Your task to perform on an android device: turn off javascript in the chrome app Image 0: 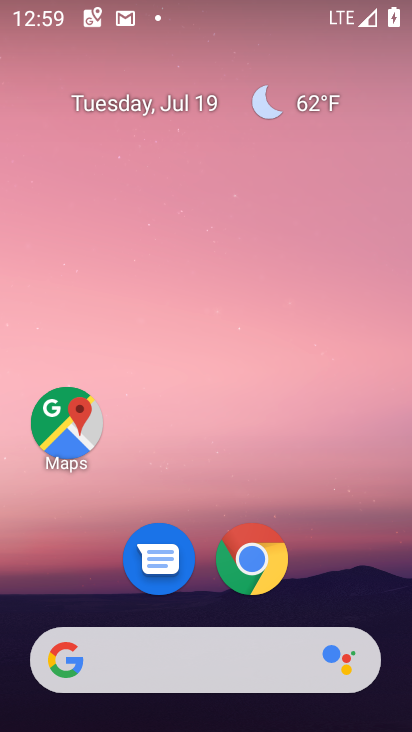
Step 0: drag from (200, 634) to (192, 70)
Your task to perform on an android device: turn off javascript in the chrome app Image 1: 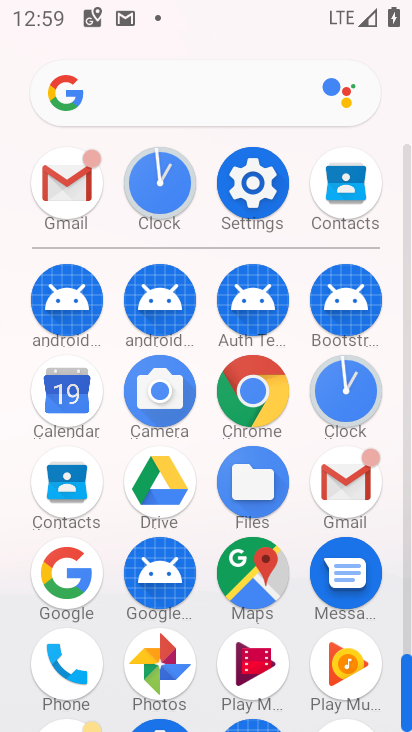
Step 1: click (249, 390)
Your task to perform on an android device: turn off javascript in the chrome app Image 2: 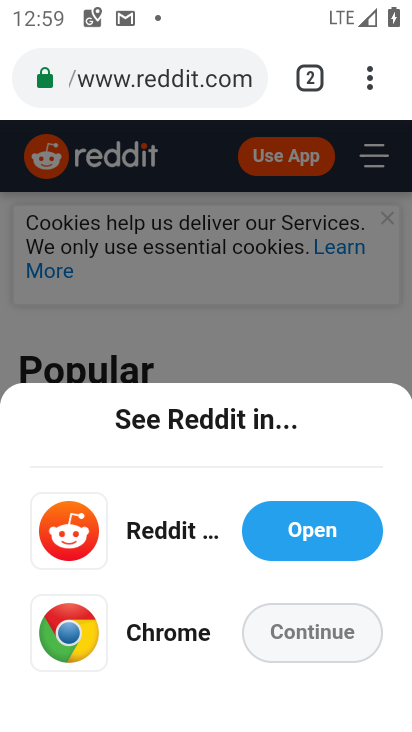
Step 2: click (369, 83)
Your task to perform on an android device: turn off javascript in the chrome app Image 3: 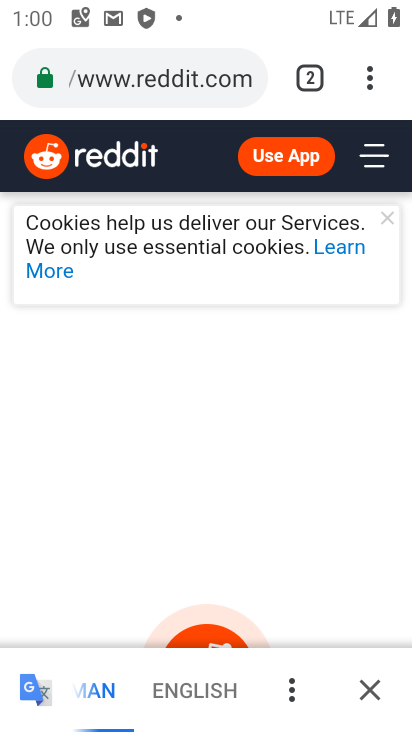
Step 3: click (380, 91)
Your task to perform on an android device: turn off javascript in the chrome app Image 4: 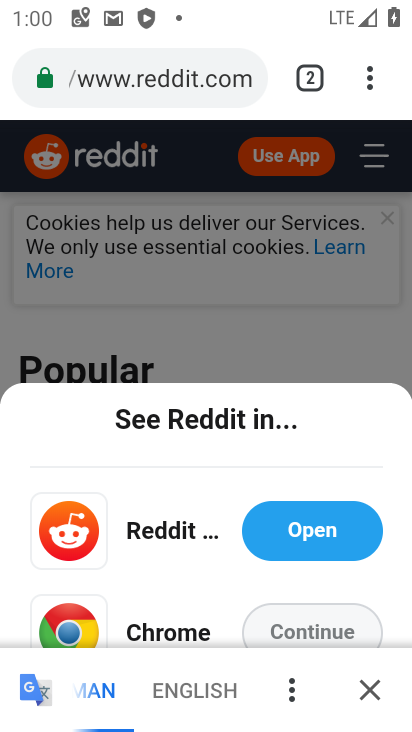
Step 4: click (368, 86)
Your task to perform on an android device: turn off javascript in the chrome app Image 5: 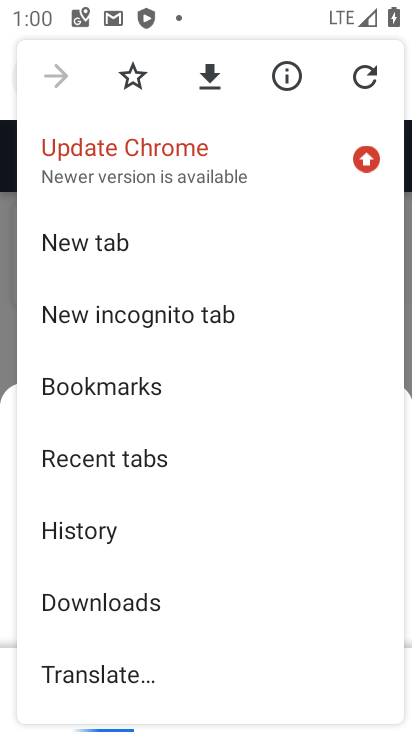
Step 5: drag from (271, 622) to (245, 407)
Your task to perform on an android device: turn off javascript in the chrome app Image 6: 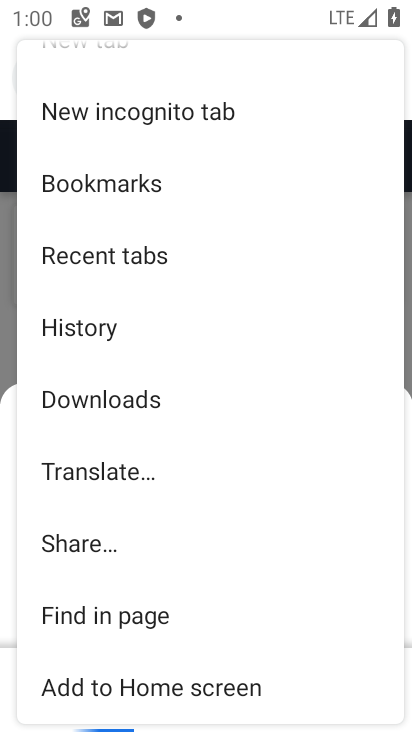
Step 6: drag from (223, 597) to (231, 397)
Your task to perform on an android device: turn off javascript in the chrome app Image 7: 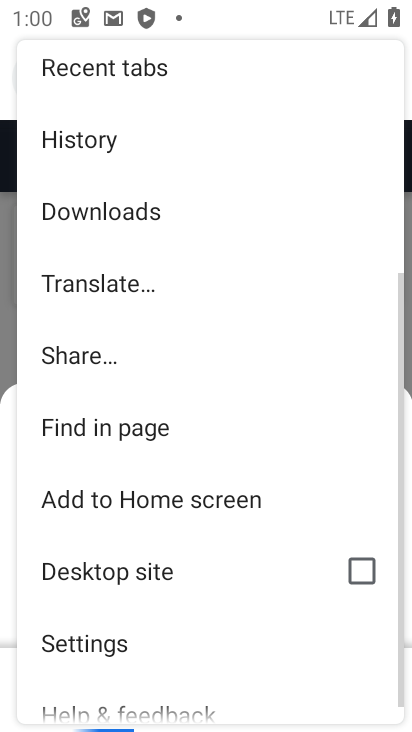
Step 7: click (137, 650)
Your task to perform on an android device: turn off javascript in the chrome app Image 8: 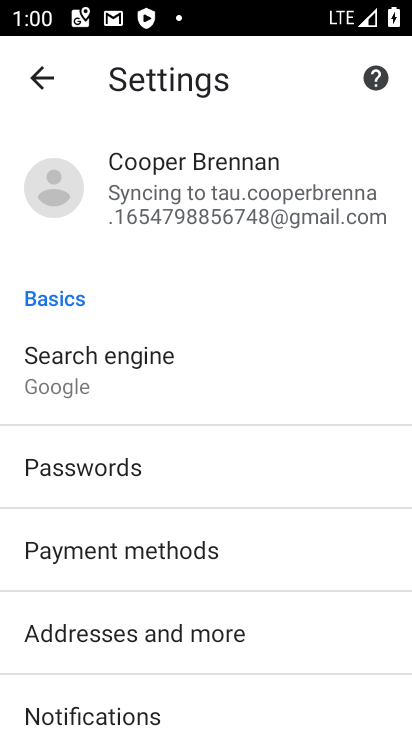
Step 8: drag from (127, 665) to (191, 407)
Your task to perform on an android device: turn off javascript in the chrome app Image 9: 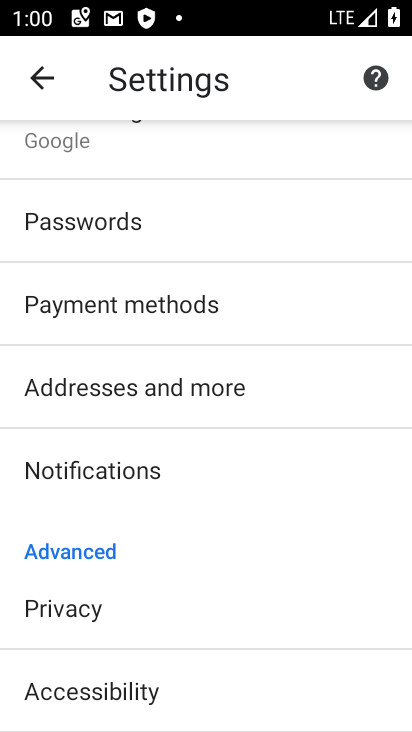
Step 9: drag from (105, 644) to (175, 345)
Your task to perform on an android device: turn off javascript in the chrome app Image 10: 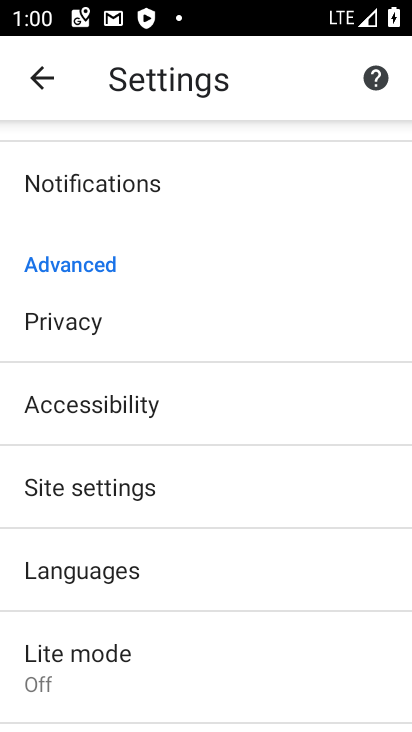
Step 10: click (126, 504)
Your task to perform on an android device: turn off javascript in the chrome app Image 11: 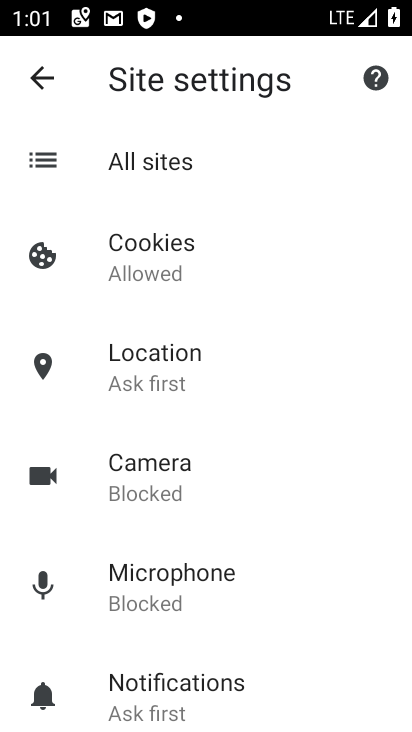
Step 11: drag from (163, 629) to (279, 247)
Your task to perform on an android device: turn off javascript in the chrome app Image 12: 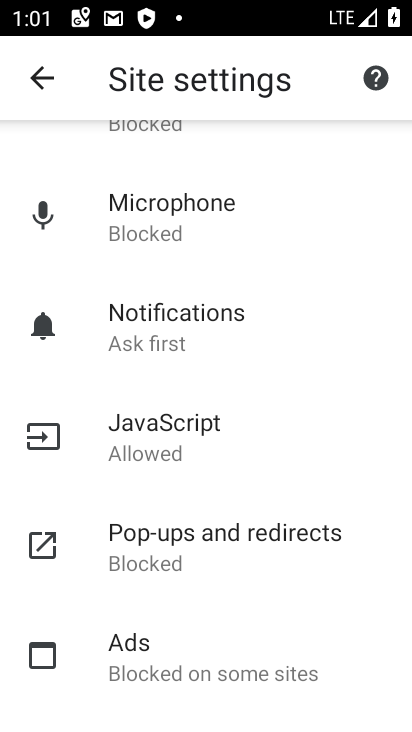
Step 12: click (240, 437)
Your task to perform on an android device: turn off javascript in the chrome app Image 13: 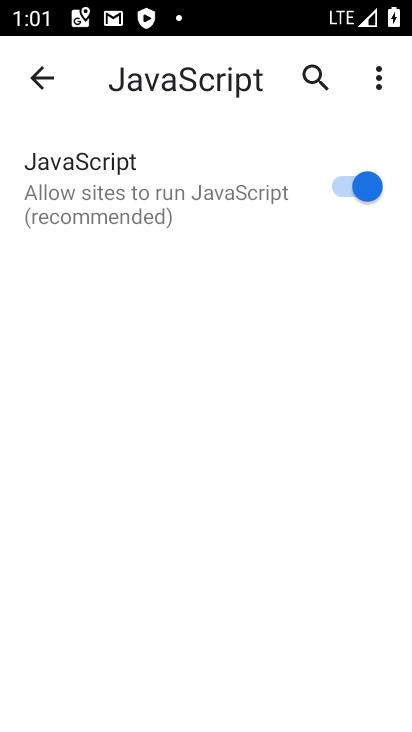
Step 13: click (334, 195)
Your task to perform on an android device: turn off javascript in the chrome app Image 14: 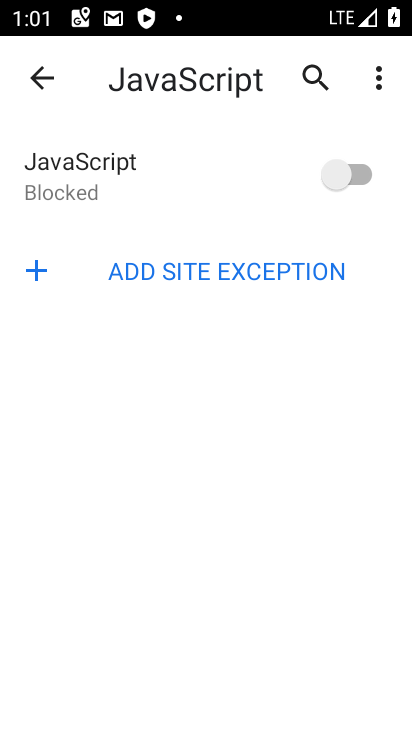
Step 14: task complete